Your task to perform on an android device: check the backup settings in the google photos Image 0: 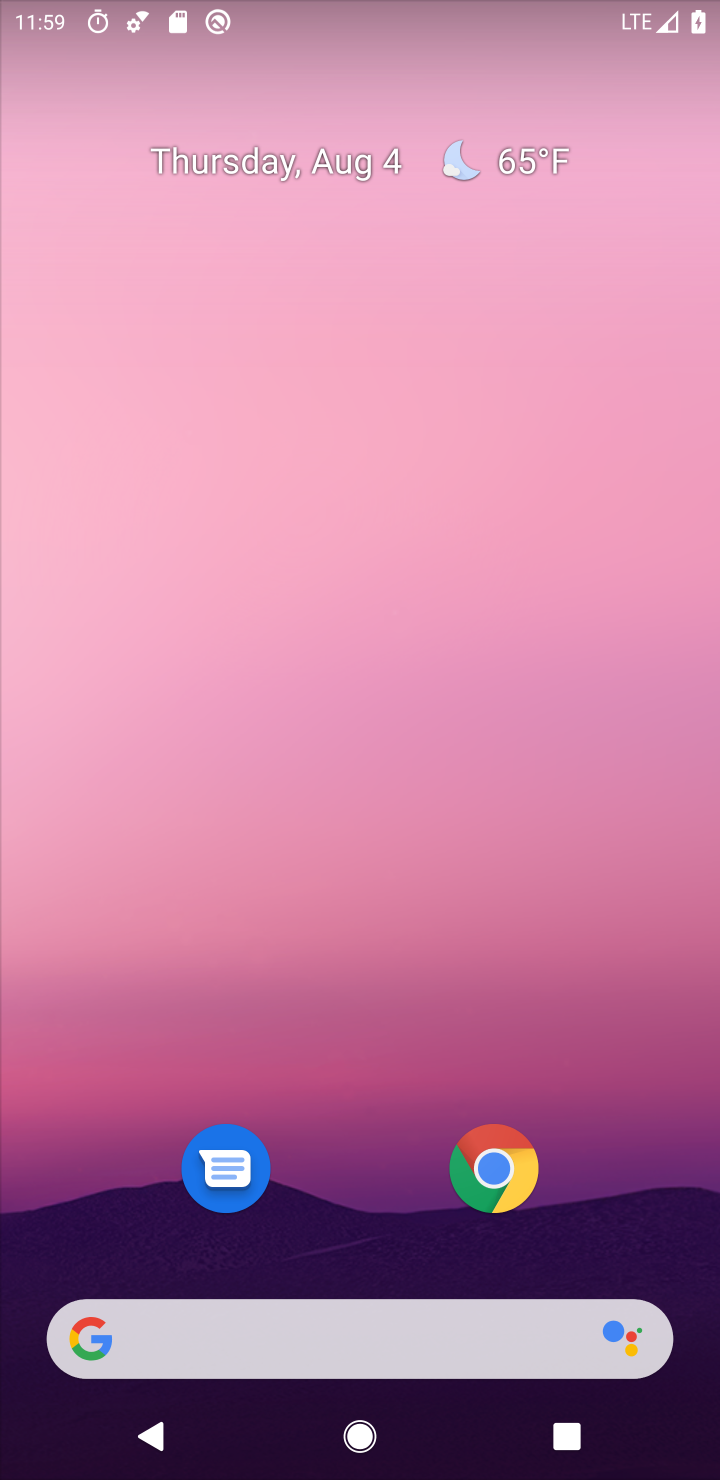
Step 0: drag from (344, 1087) to (426, 147)
Your task to perform on an android device: check the backup settings in the google photos Image 1: 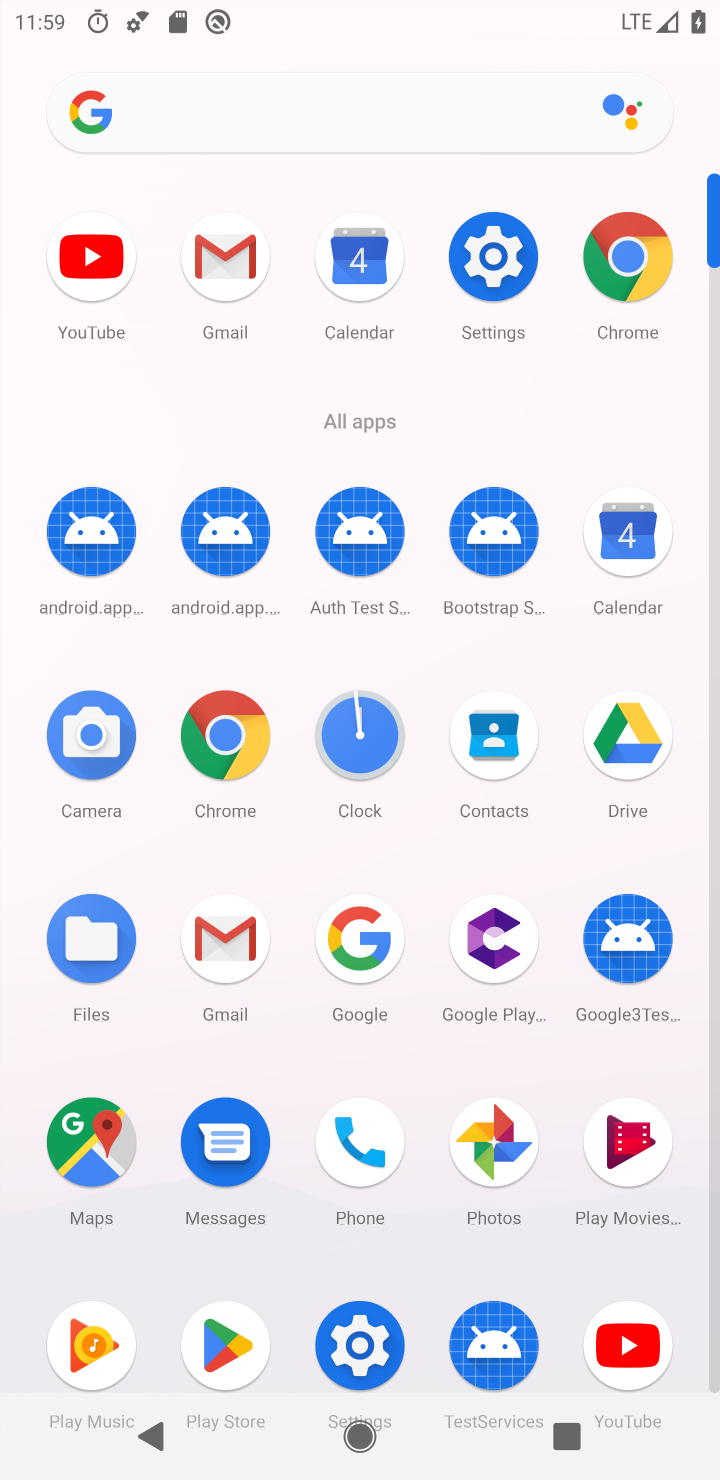
Step 1: click (516, 1161)
Your task to perform on an android device: check the backup settings in the google photos Image 2: 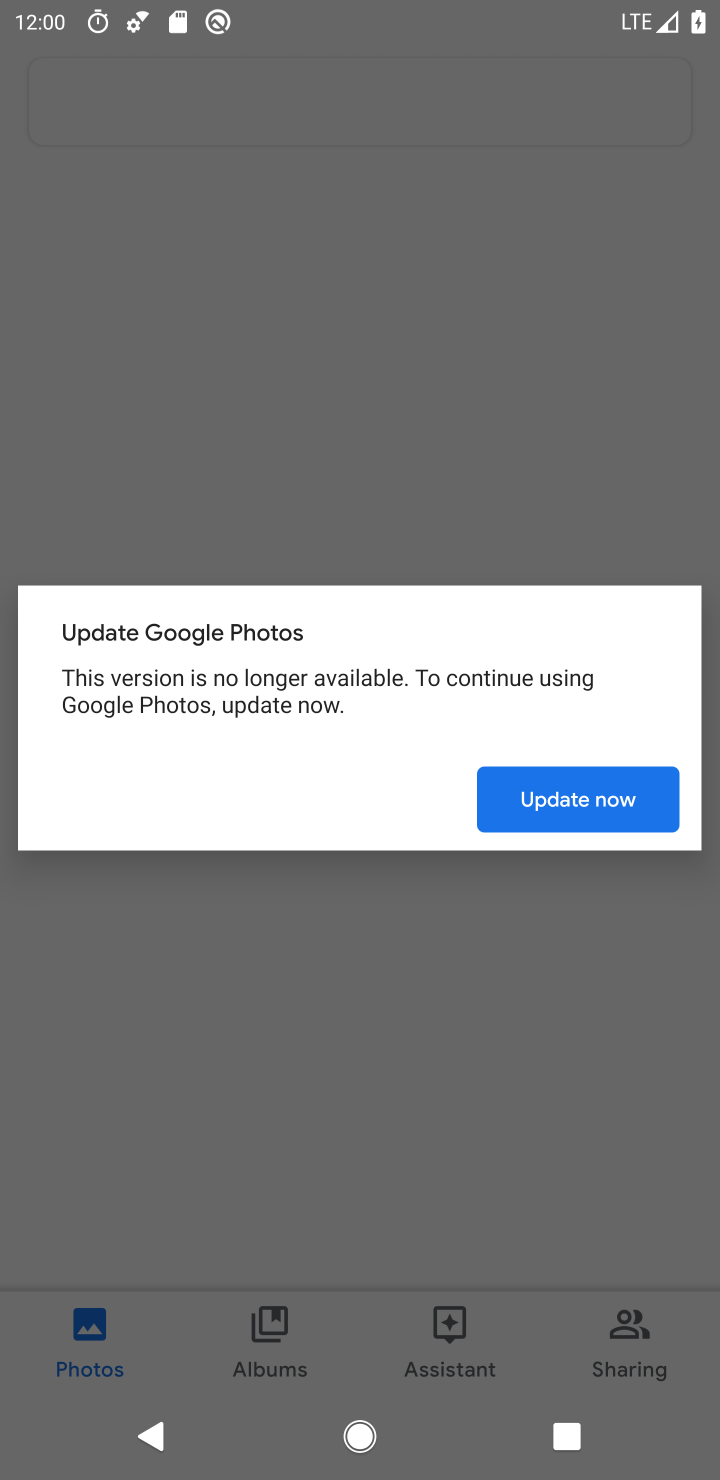
Step 2: click (618, 802)
Your task to perform on an android device: check the backup settings in the google photos Image 3: 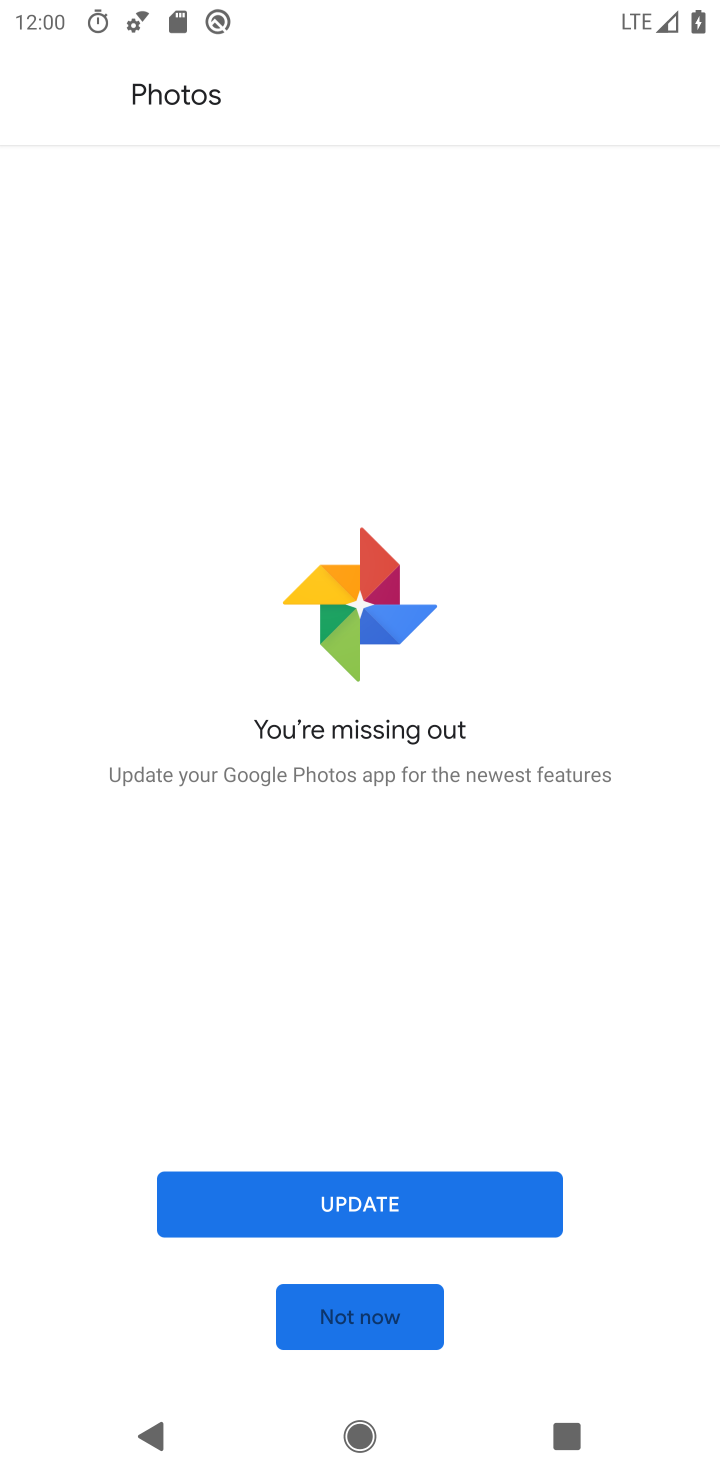
Step 3: click (369, 1313)
Your task to perform on an android device: check the backup settings in the google photos Image 4: 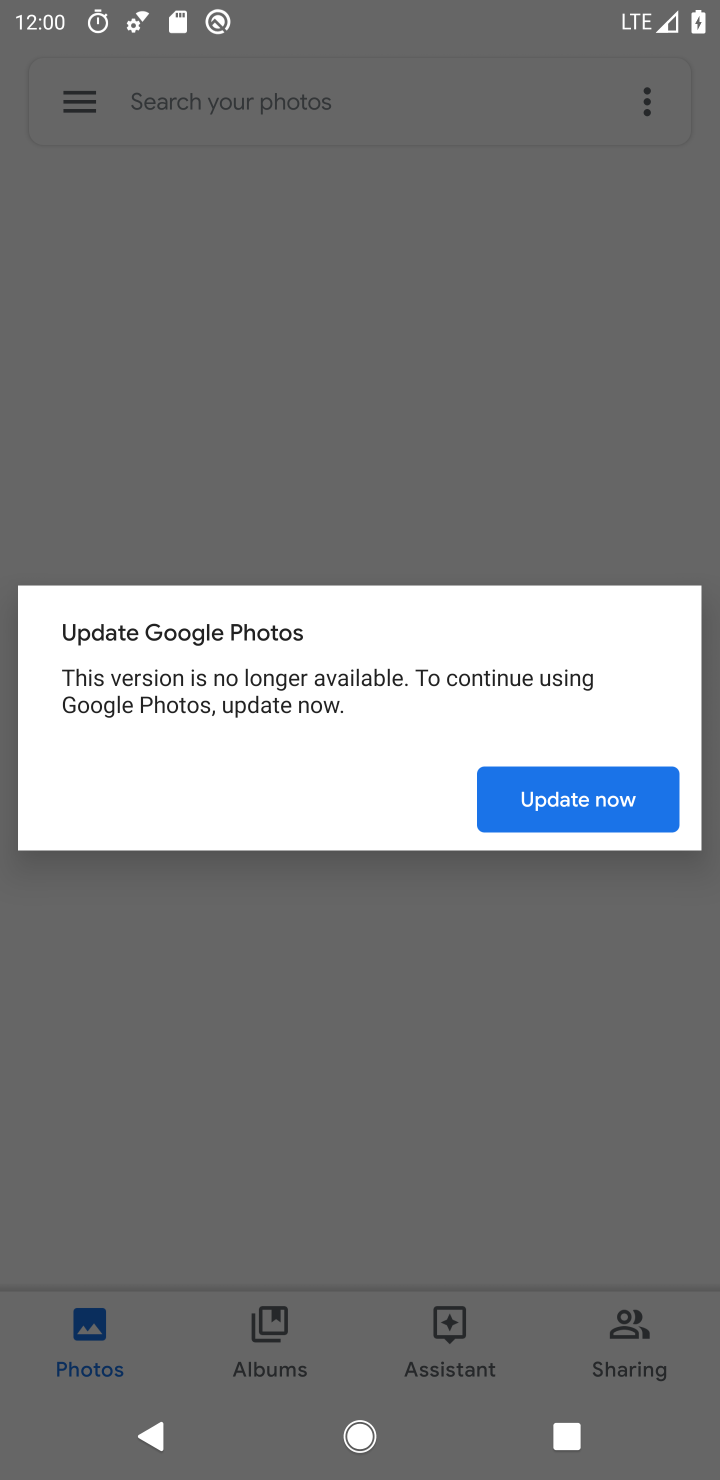
Step 4: click (641, 801)
Your task to perform on an android device: check the backup settings in the google photos Image 5: 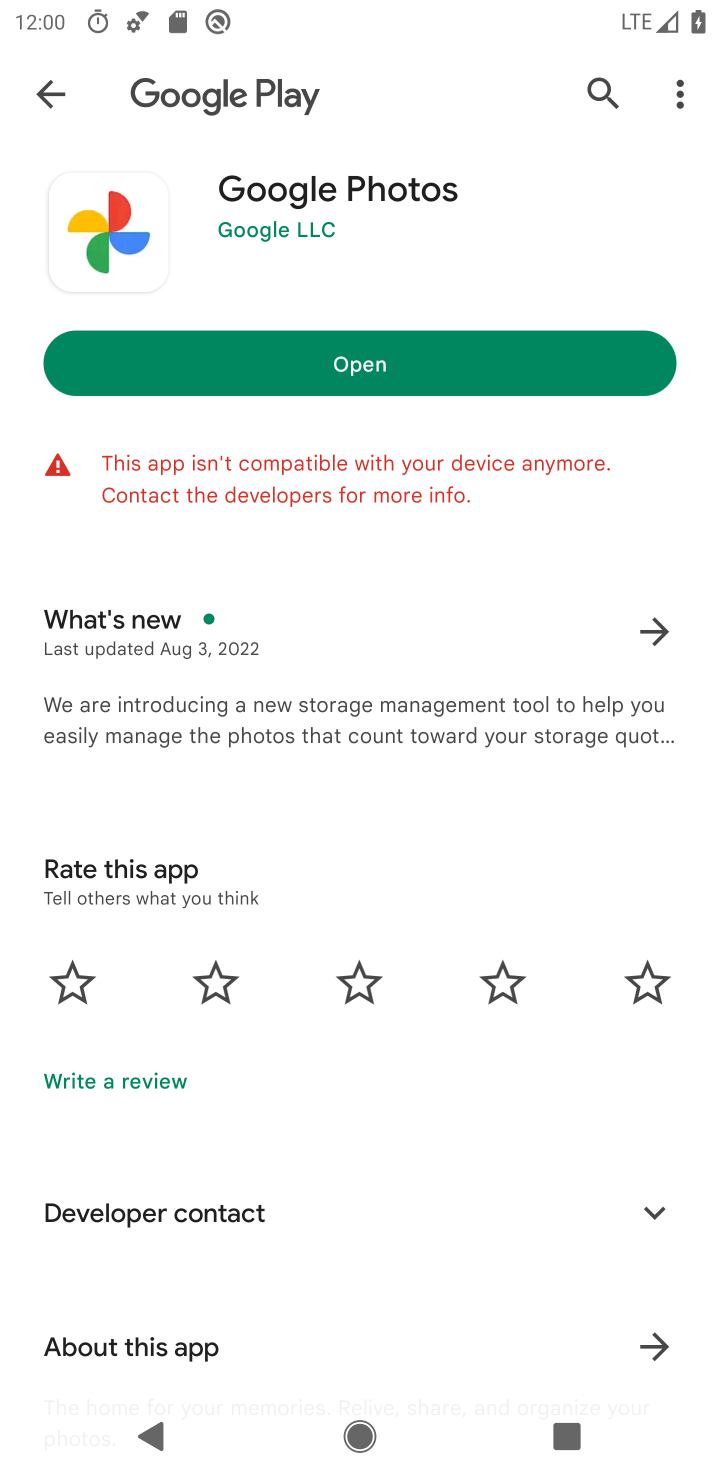
Step 5: click (528, 363)
Your task to perform on an android device: check the backup settings in the google photos Image 6: 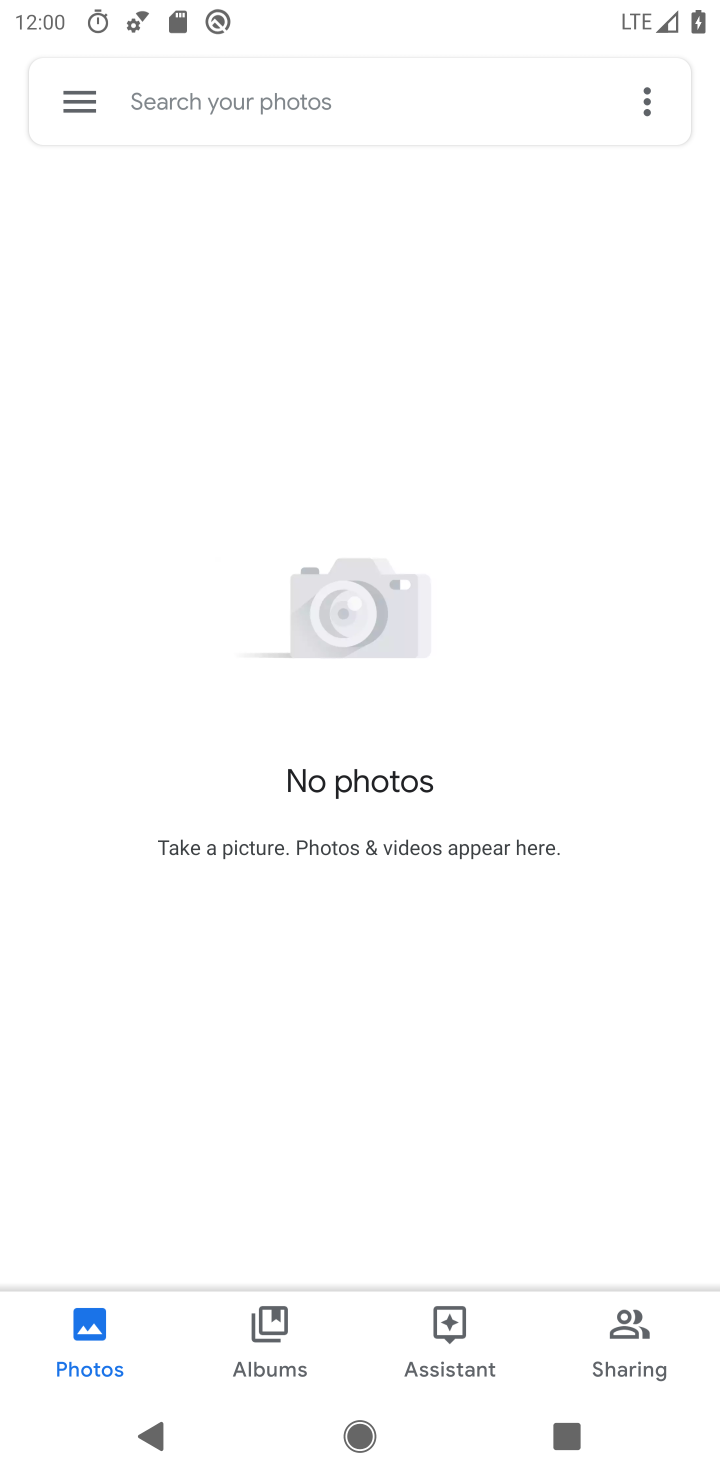
Step 6: click (85, 93)
Your task to perform on an android device: check the backup settings in the google photos Image 7: 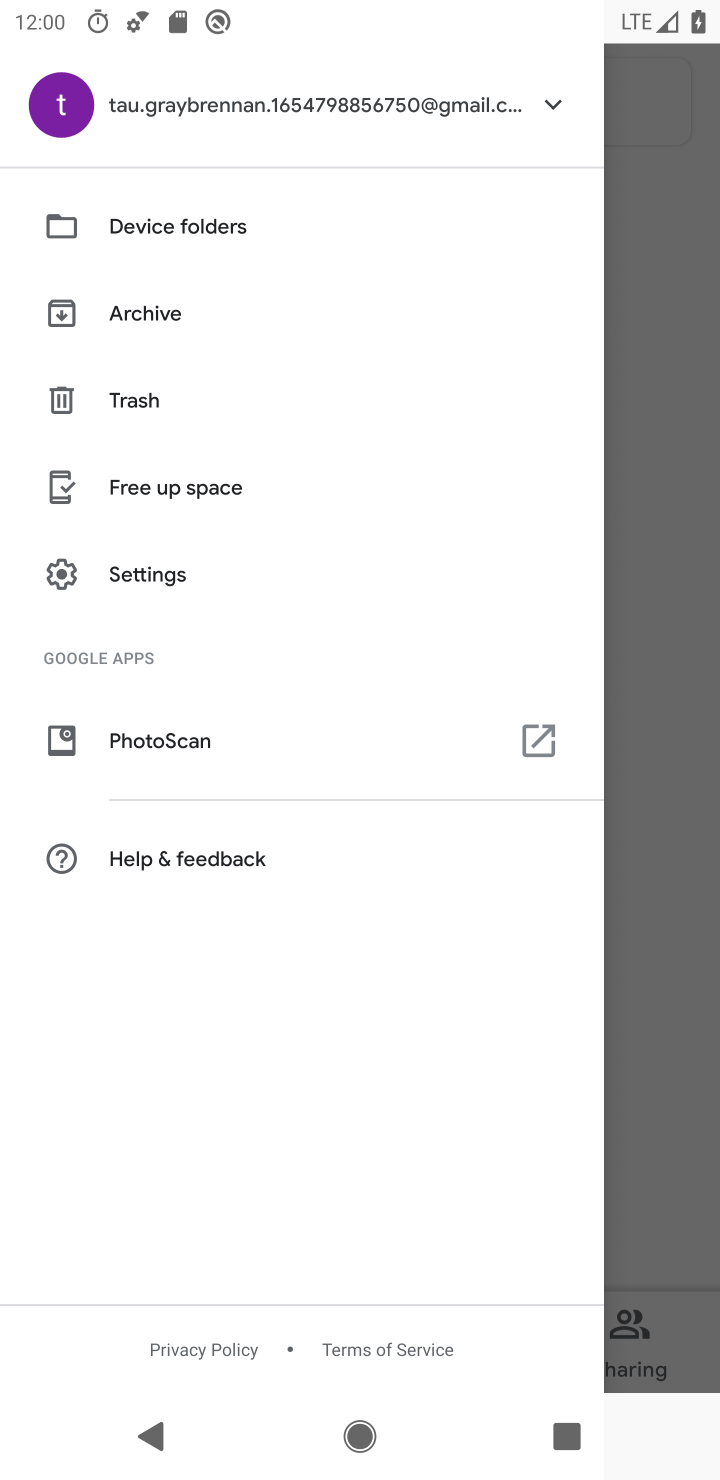
Step 7: click (151, 576)
Your task to perform on an android device: check the backup settings in the google photos Image 8: 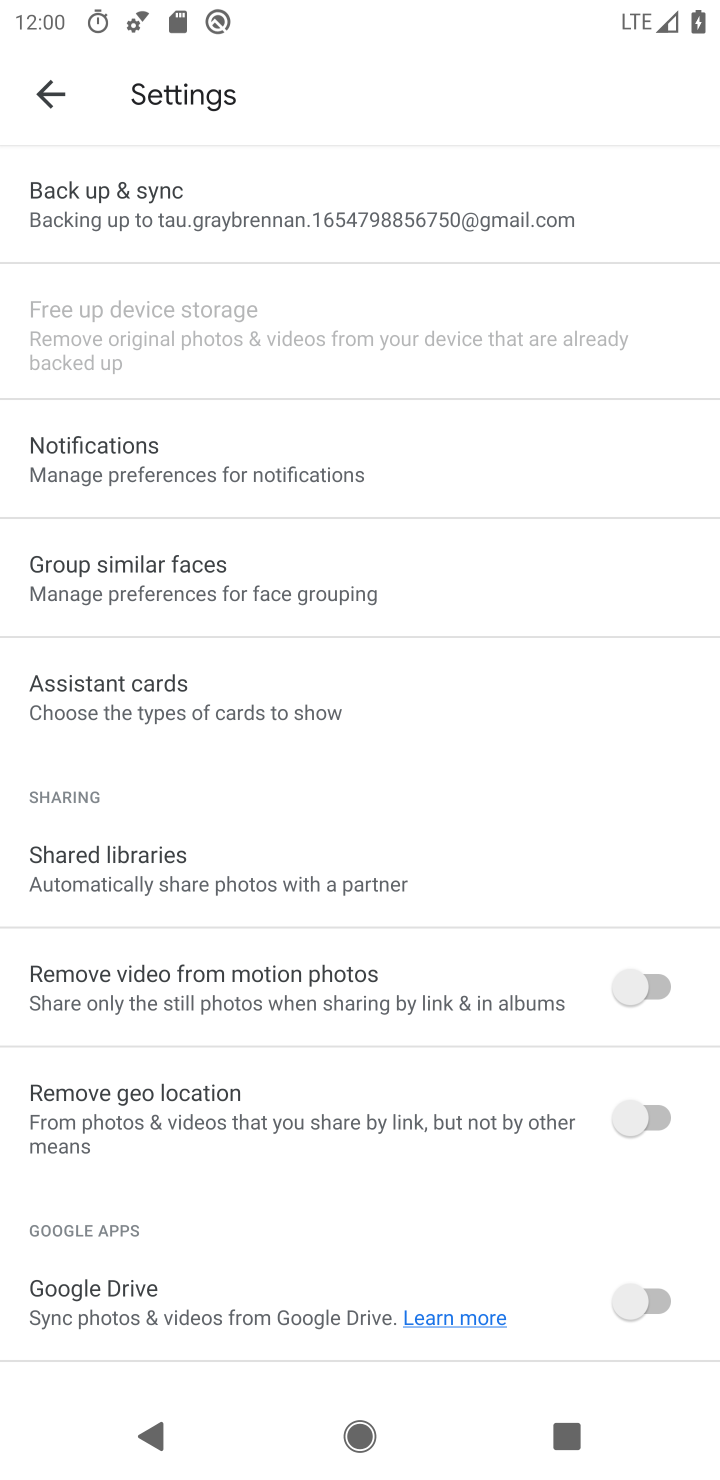
Step 8: click (204, 211)
Your task to perform on an android device: check the backup settings in the google photos Image 9: 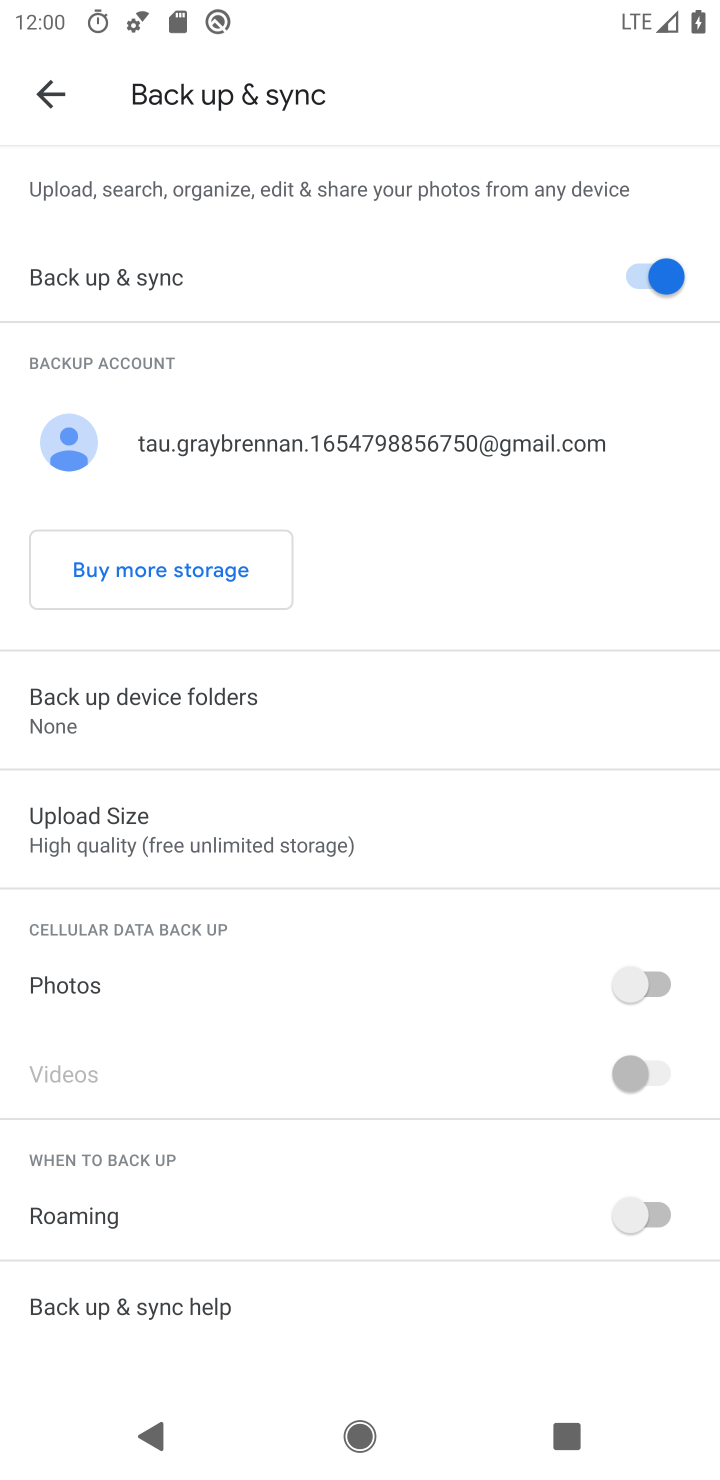
Step 9: task complete